Your task to perform on an android device: toggle sleep mode Image 0: 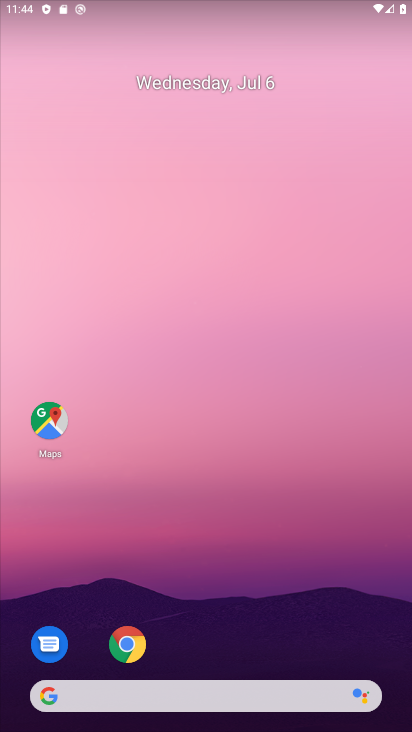
Step 0: drag from (173, 696) to (132, 193)
Your task to perform on an android device: toggle sleep mode Image 1: 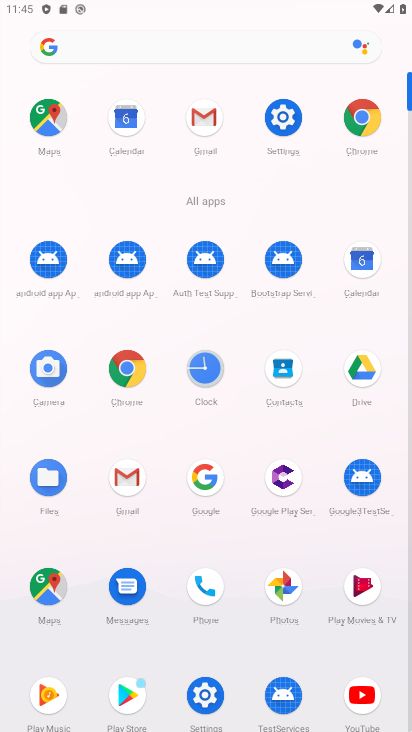
Step 1: click (283, 118)
Your task to perform on an android device: toggle sleep mode Image 2: 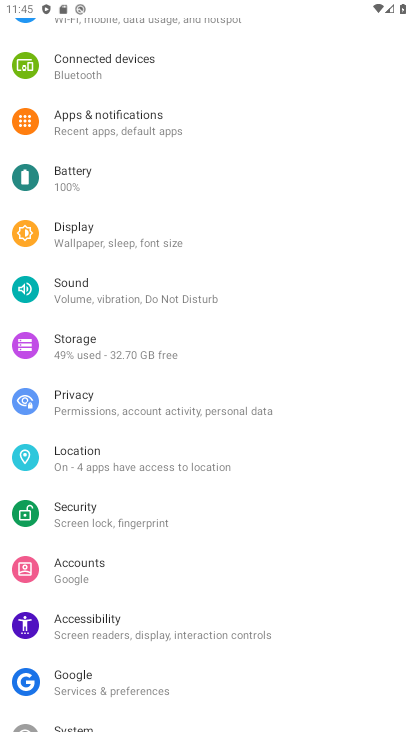
Step 2: click (77, 234)
Your task to perform on an android device: toggle sleep mode Image 3: 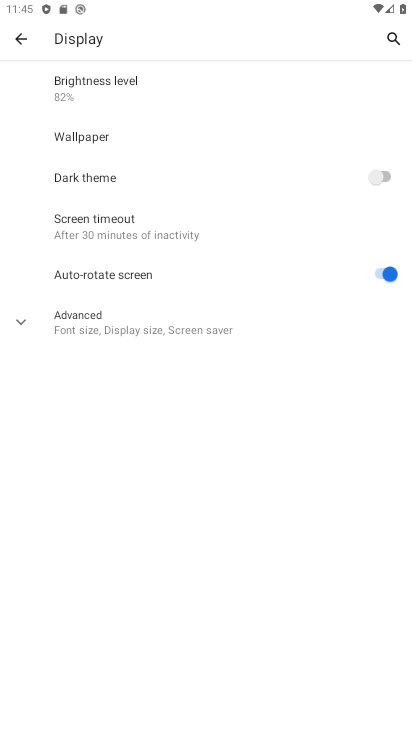
Step 3: click (112, 324)
Your task to perform on an android device: toggle sleep mode Image 4: 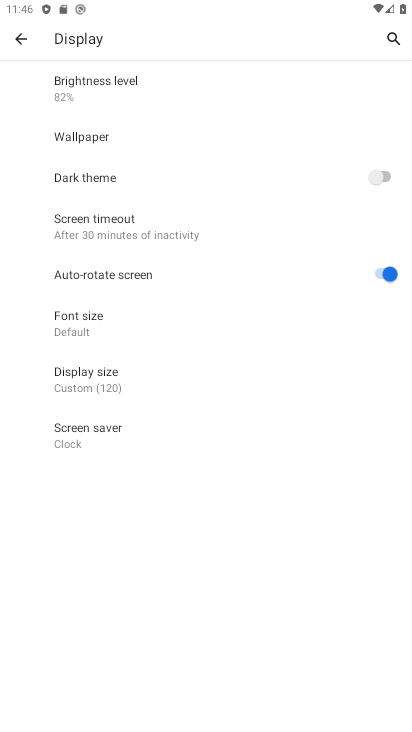
Step 4: task complete